Your task to perform on an android device: Open Chrome and go to the settings page Image 0: 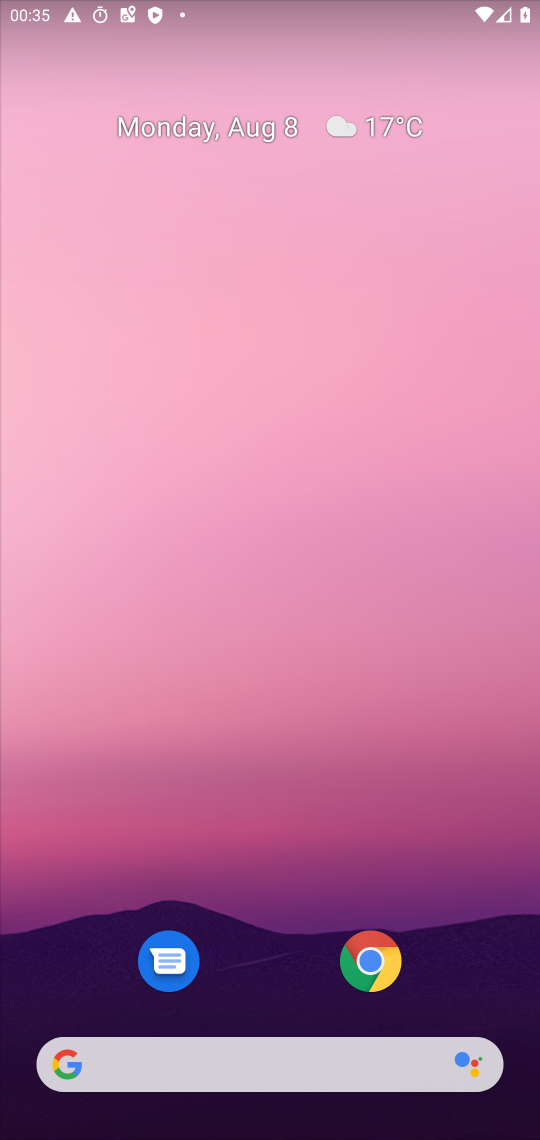
Step 0: drag from (289, 1060) to (220, 379)
Your task to perform on an android device: Open Chrome and go to the settings page Image 1: 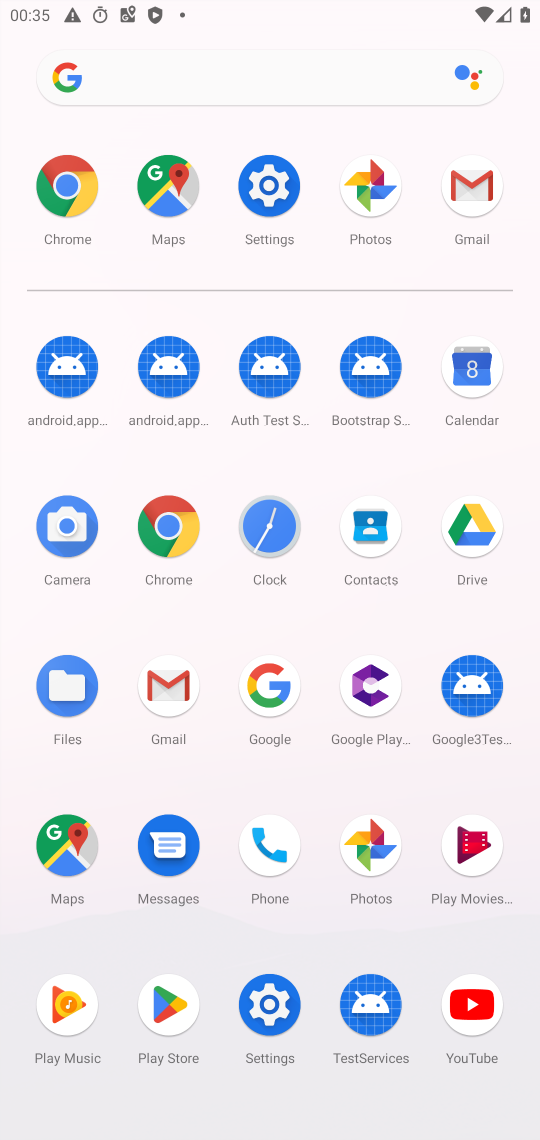
Step 1: click (272, 171)
Your task to perform on an android device: Open Chrome and go to the settings page Image 2: 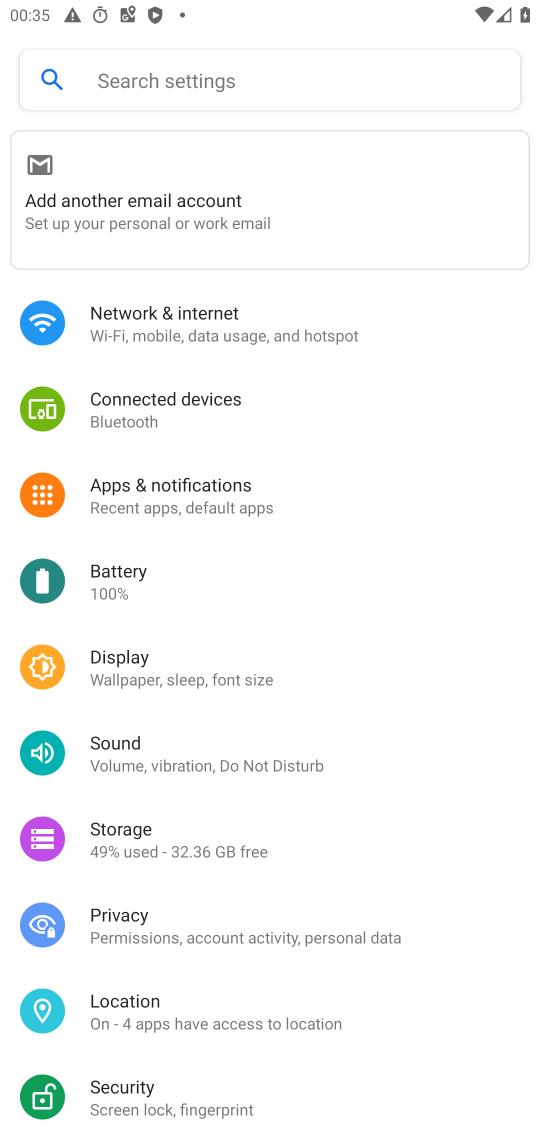
Step 2: press home button
Your task to perform on an android device: Open Chrome and go to the settings page Image 3: 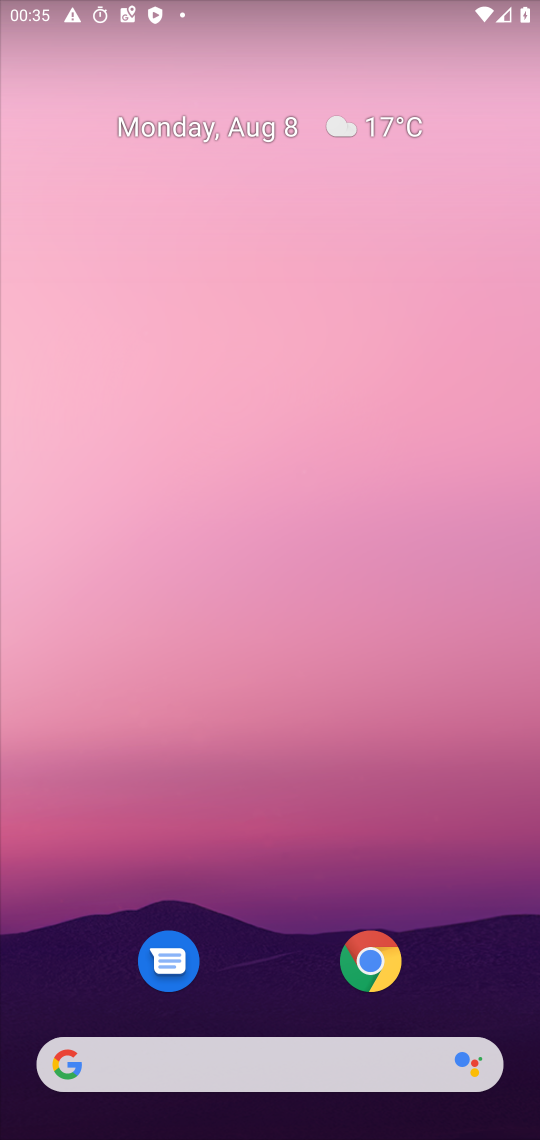
Step 3: drag from (434, 1057) to (311, 71)
Your task to perform on an android device: Open Chrome and go to the settings page Image 4: 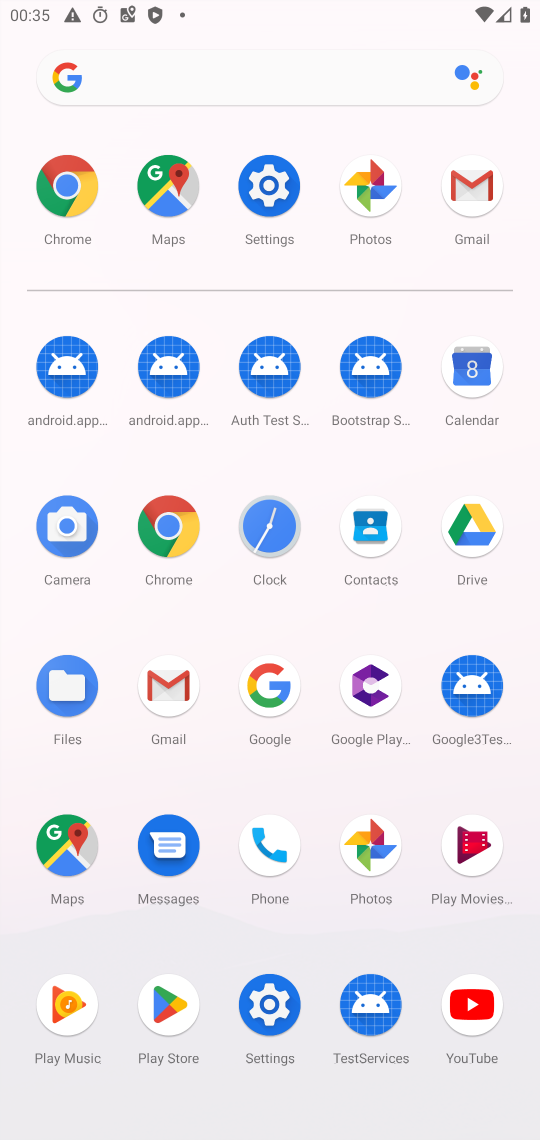
Step 4: click (159, 526)
Your task to perform on an android device: Open Chrome and go to the settings page Image 5: 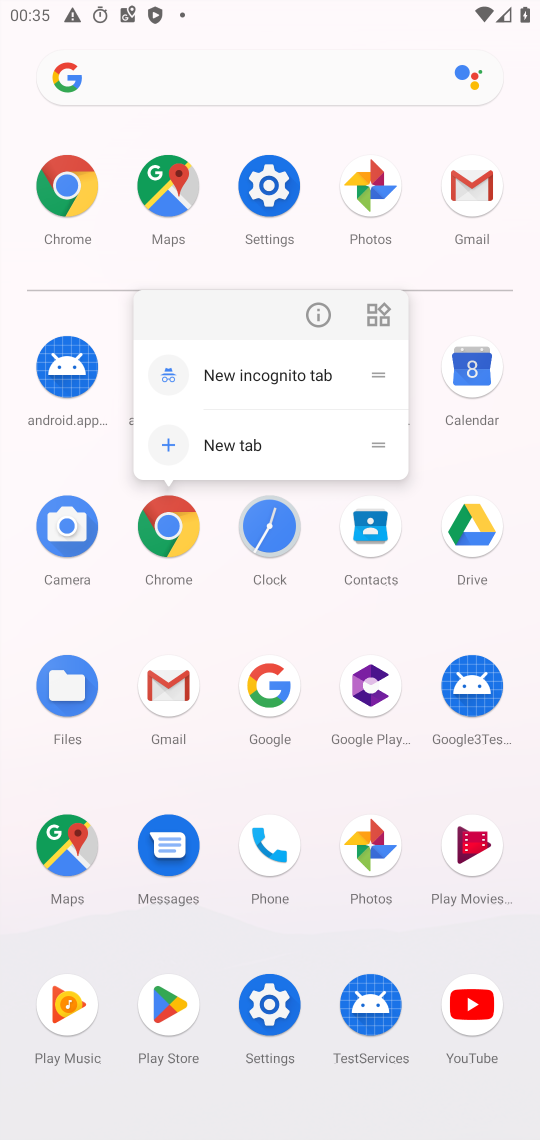
Step 5: click (172, 509)
Your task to perform on an android device: Open Chrome and go to the settings page Image 6: 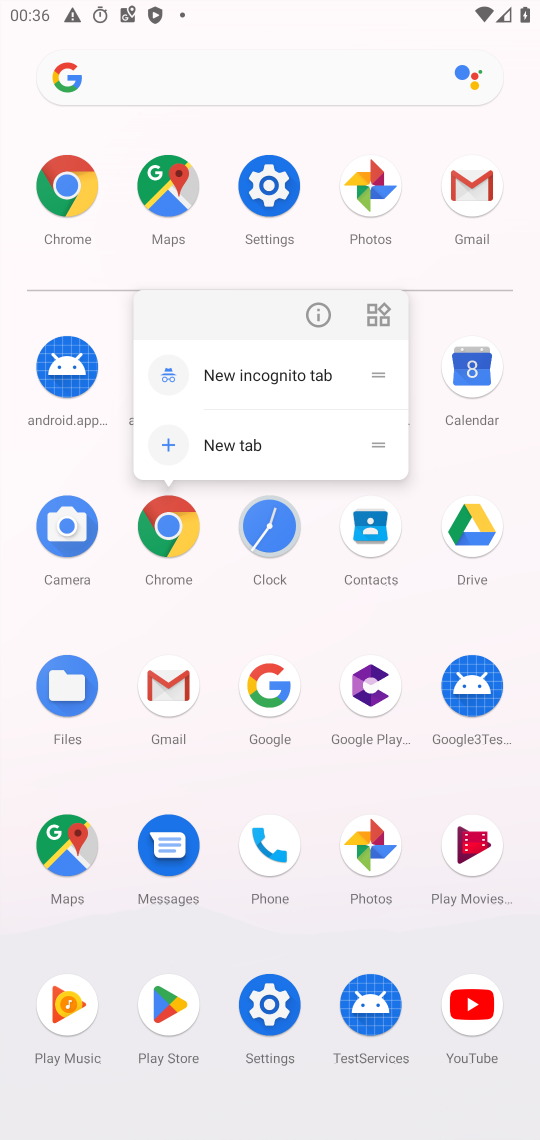
Step 6: click (191, 522)
Your task to perform on an android device: Open Chrome and go to the settings page Image 7: 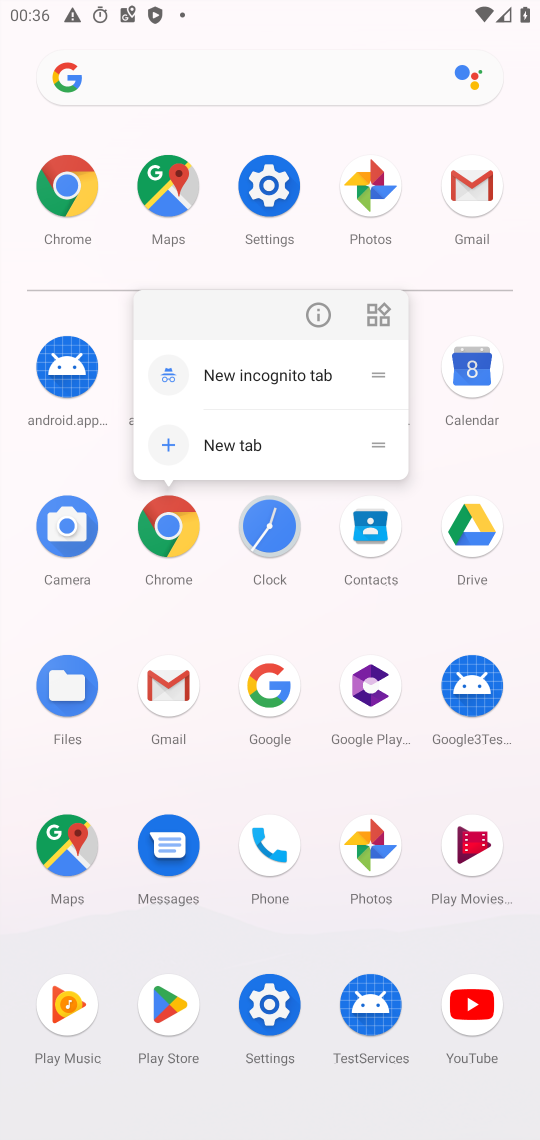
Step 7: click (180, 524)
Your task to perform on an android device: Open Chrome and go to the settings page Image 8: 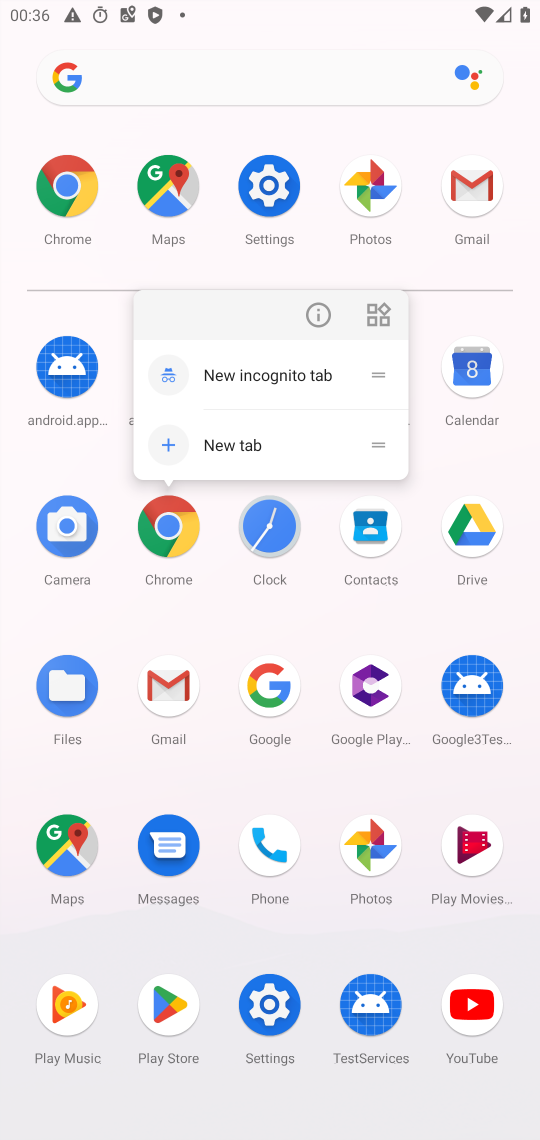
Step 8: click (180, 524)
Your task to perform on an android device: Open Chrome and go to the settings page Image 9: 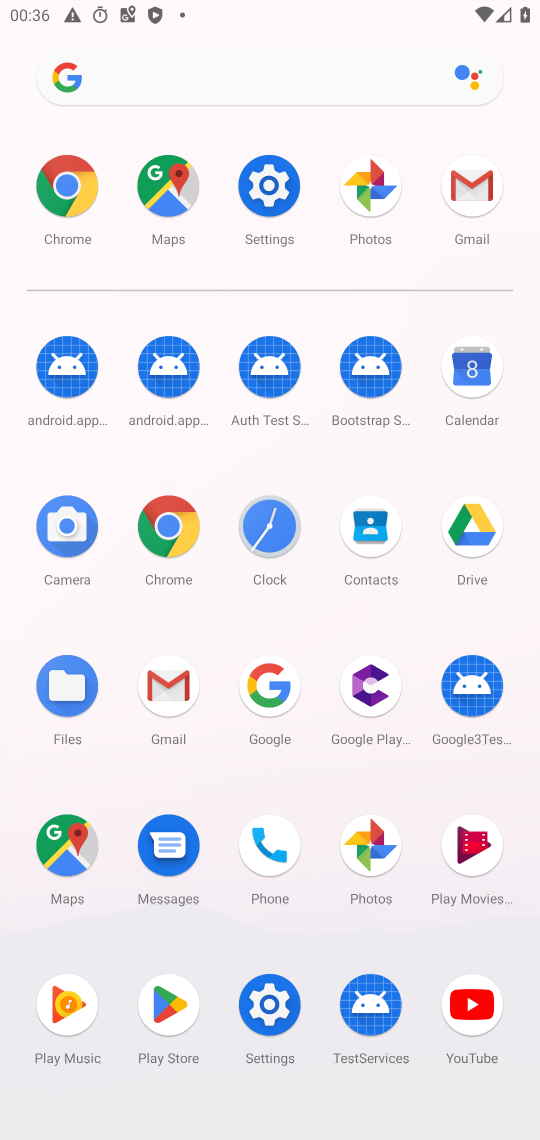
Step 9: click (180, 524)
Your task to perform on an android device: Open Chrome and go to the settings page Image 10: 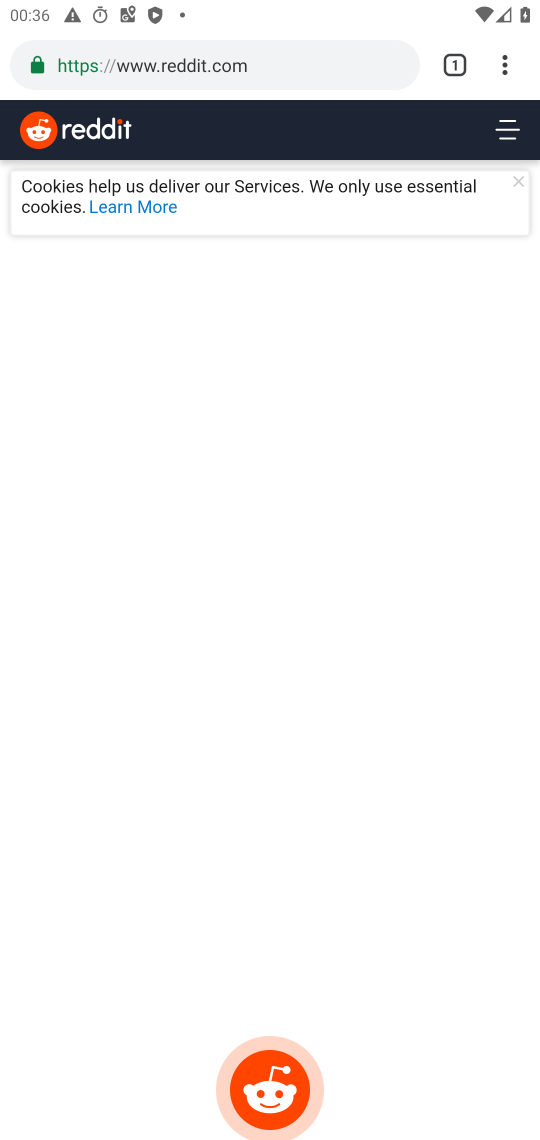
Step 10: click (498, 49)
Your task to perform on an android device: Open Chrome and go to the settings page Image 11: 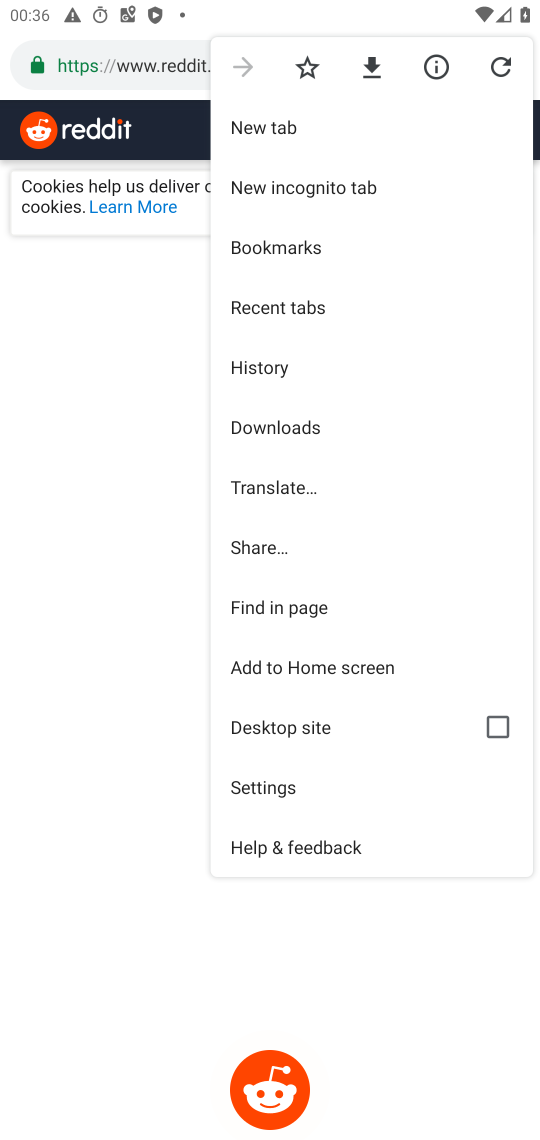
Step 11: click (300, 783)
Your task to perform on an android device: Open Chrome and go to the settings page Image 12: 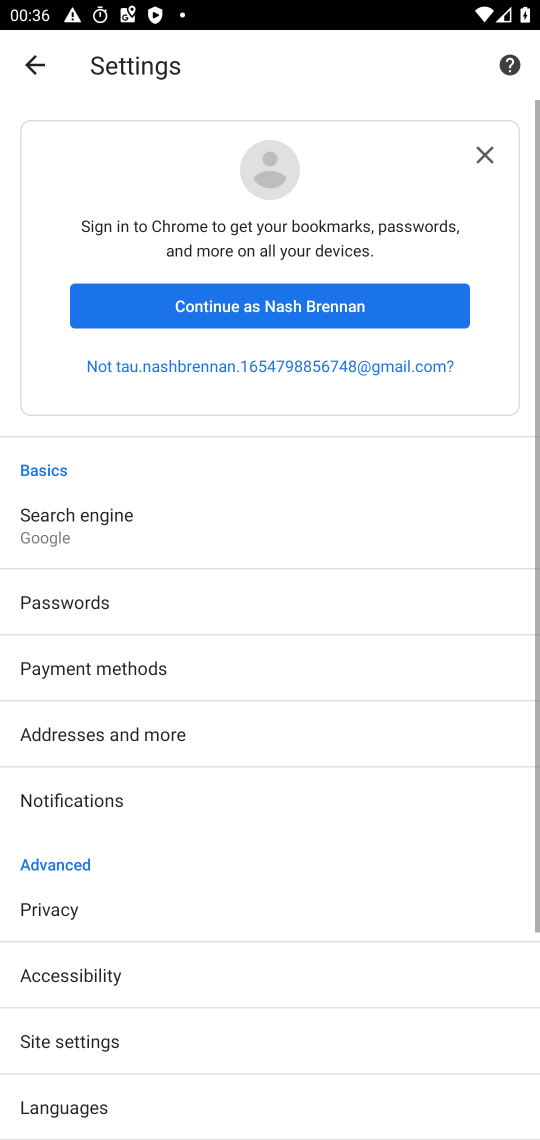
Step 12: task complete